Your task to perform on an android device: When is my next meeting? Image 0: 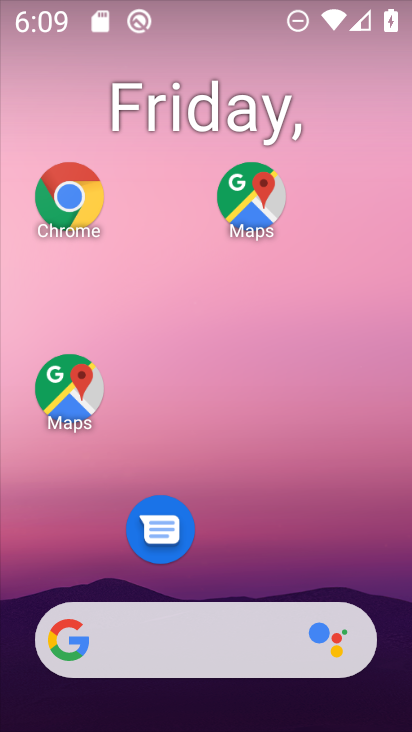
Step 0: drag from (268, 558) to (267, 125)
Your task to perform on an android device: When is my next meeting? Image 1: 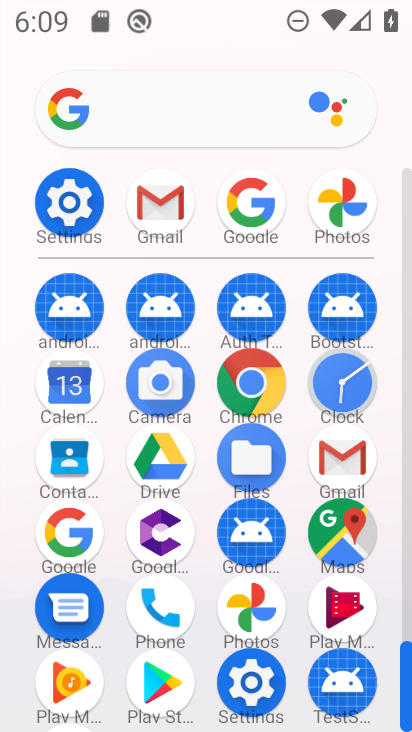
Step 1: click (73, 410)
Your task to perform on an android device: When is my next meeting? Image 2: 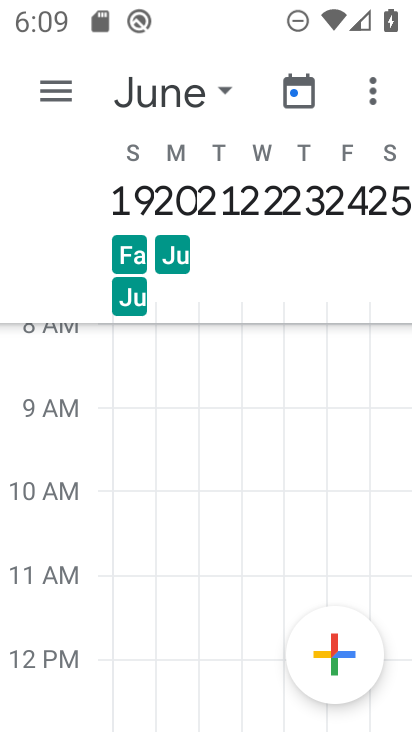
Step 2: click (49, 92)
Your task to perform on an android device: When is my next meeting? Image 3: 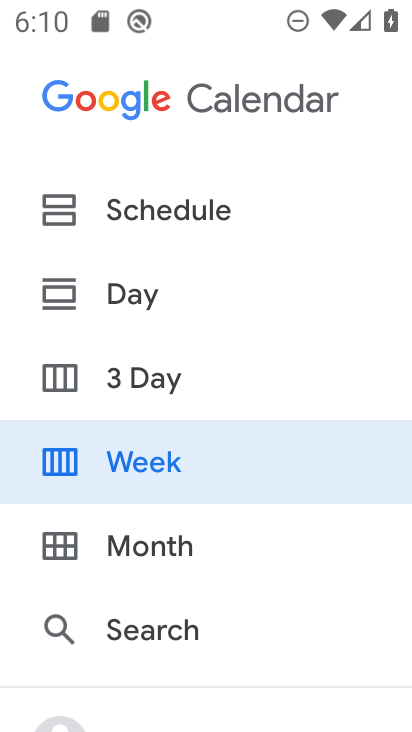
Step 3: click (172, 215)
Your task to perform on an android device: When is my next meeting? Image 4: 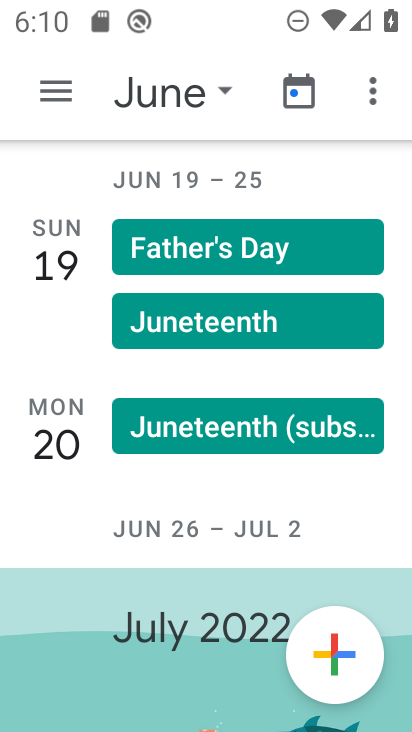
Step 4: click (159, 101)
Your task to perform on an android device: When is my next meeting? Image 5: 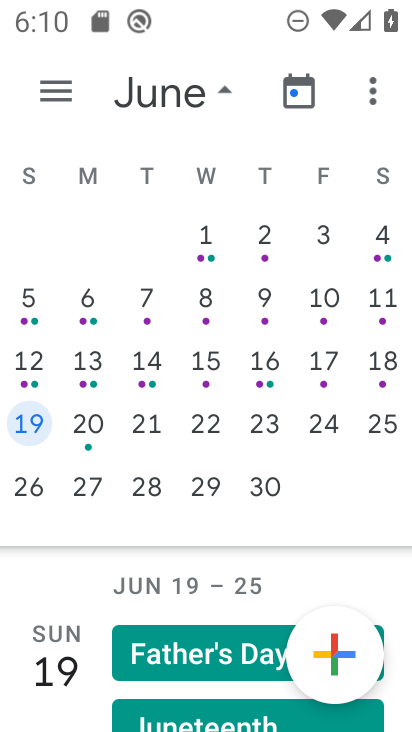
Step 5: drag from (96, 347) to (402, 345)
Your task to perform on an android device: When is my next meeting? Image 6: 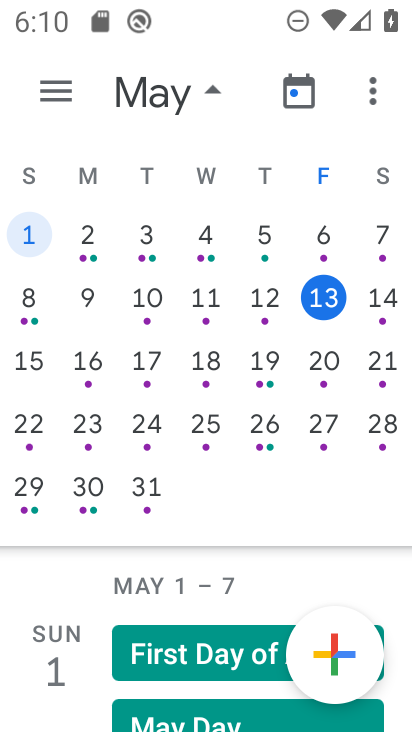
Step 6: click (322, 299)
Your task to perform on an android device: When is my next meeting? Image 7: 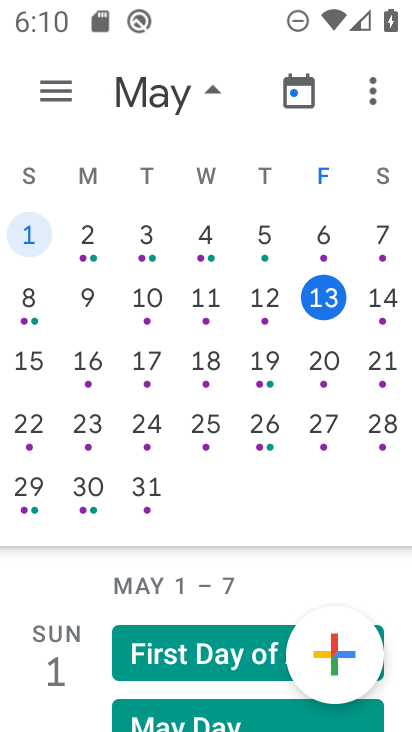
Step 7: click (69, 89)
Your task to perform on an android device: When is my next meeting? Image 8: 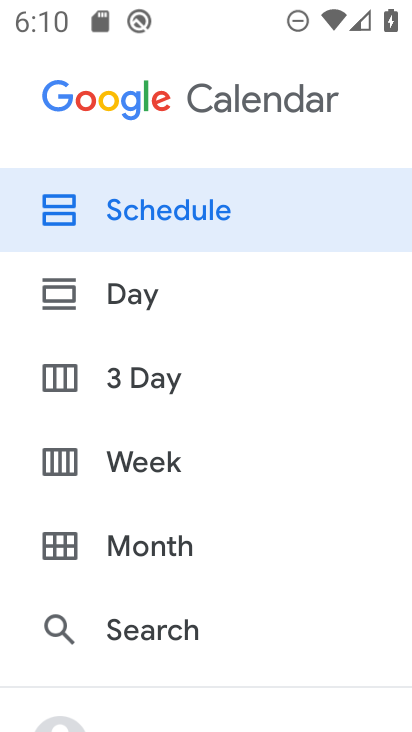
Step 8: click (155, 223)
Your task to perform on an android device: When is my next meeting? Image 9: 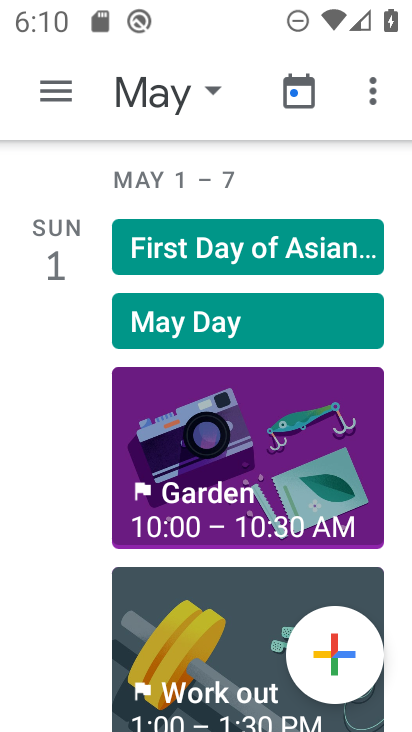
Step 9: click (171, 96)
Your task to perform on an android device: When is my next meeting? Image 10: 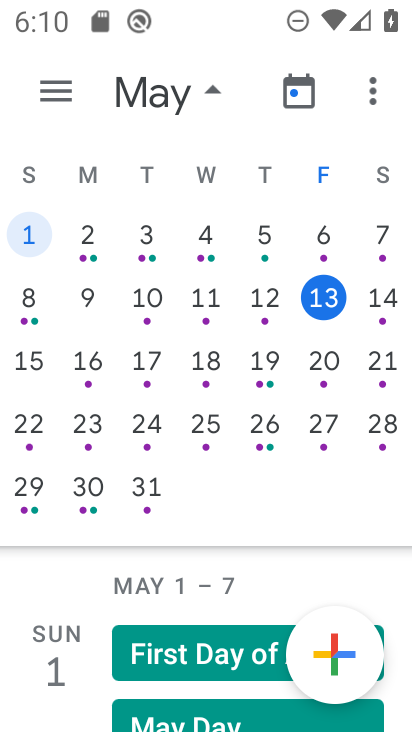
Step 10: click (320, 304)
Your task to perform on an android device: When is my next meeting? Image 11: 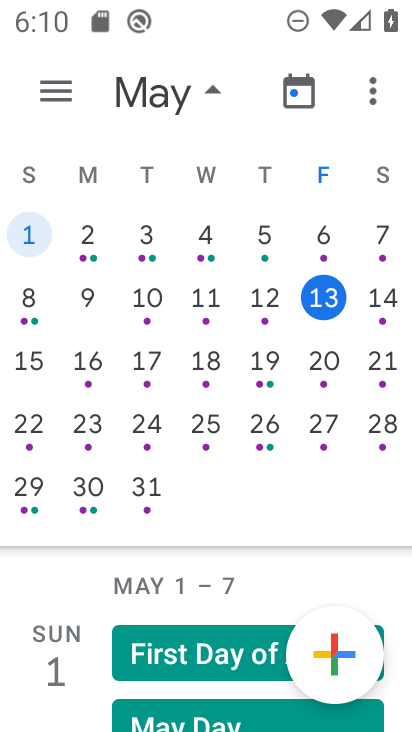
Step 11: task complete